Your task to perform on an android device: turn on the 12-hour format for clock Image 0: 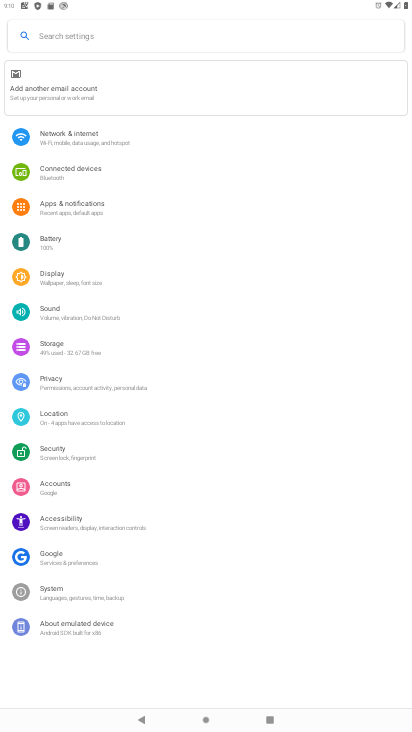
Step 0: press home button
Your task to perform on an android device: turn on the 12-hour format for clock Image 1: 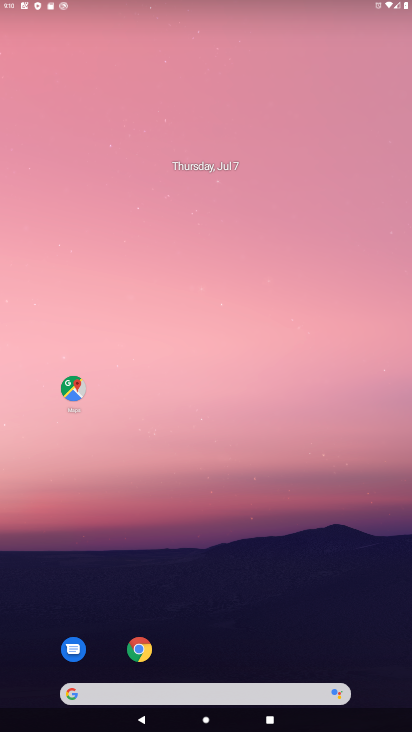
Step 1: drag from (204, 607) to (235, 84)
Your task to perform on an android device: turn on the 12-hour format for clock Image 2: 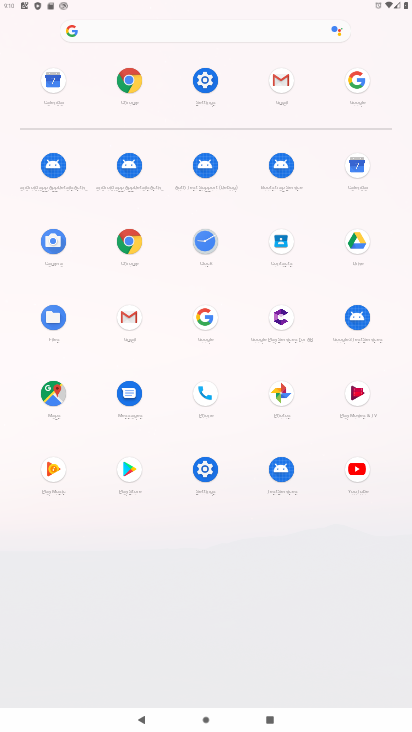
Step 2: click (197, 240)
Your task to perform on an android device: turn on the 12-hour format for clock Image 3: 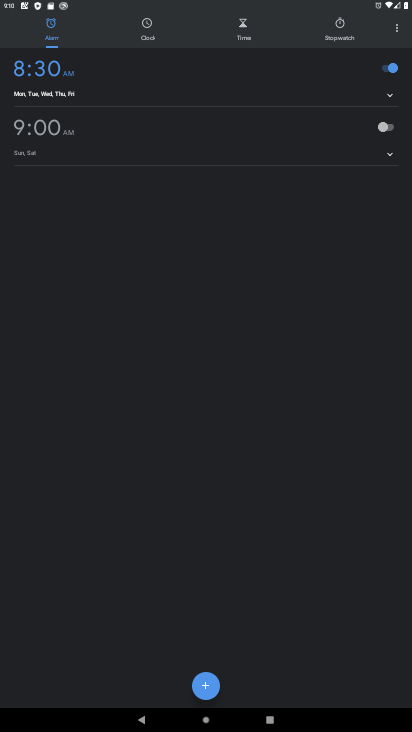
Step 3: click (398, 27)
Your task to perform on an android device: turn on the 12-hour format for clock Image 4: 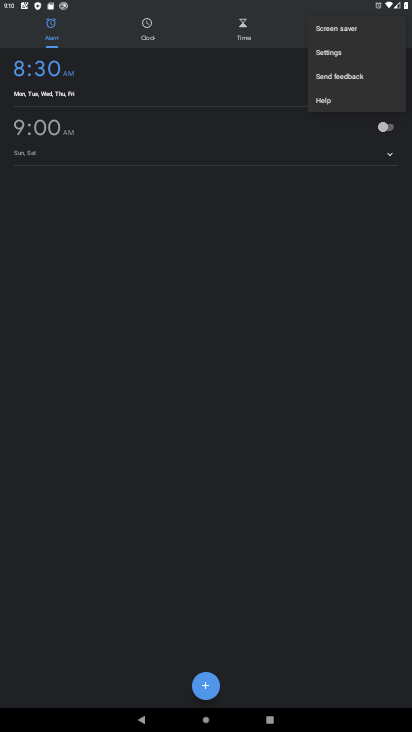
Step 4: click (333, 53)
Your task to perform on an android device: turn on the 12-hour format for clock Image 5: 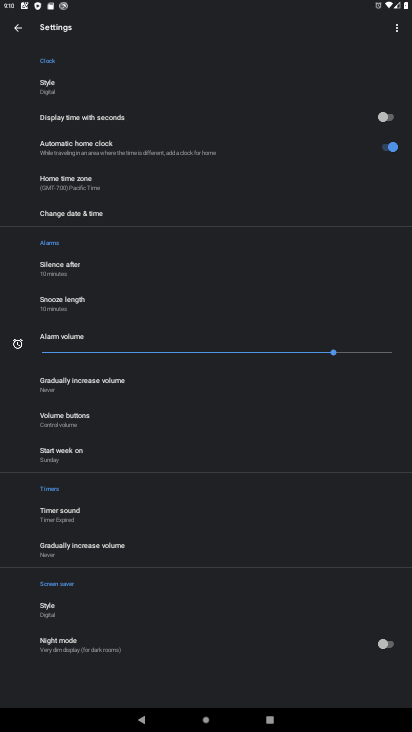
Step 5: click (80, 219)
Your task to perform on an android device: turn on the 12-hour format for clock Image 6: 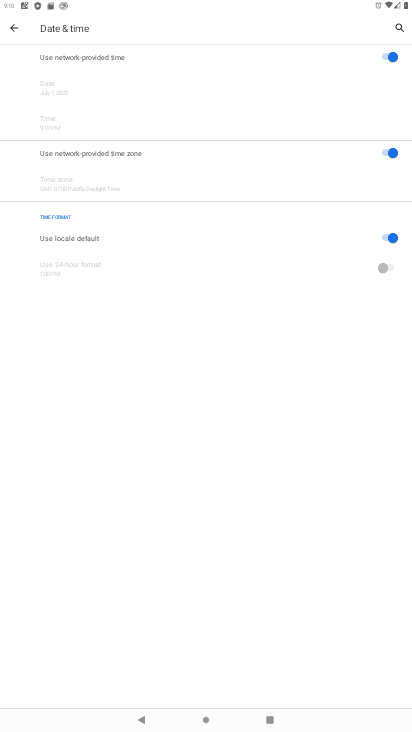
Step 6: click (380, 235)
Your task to perform on an android device: turn on the 12-hour format for clock Image 7: 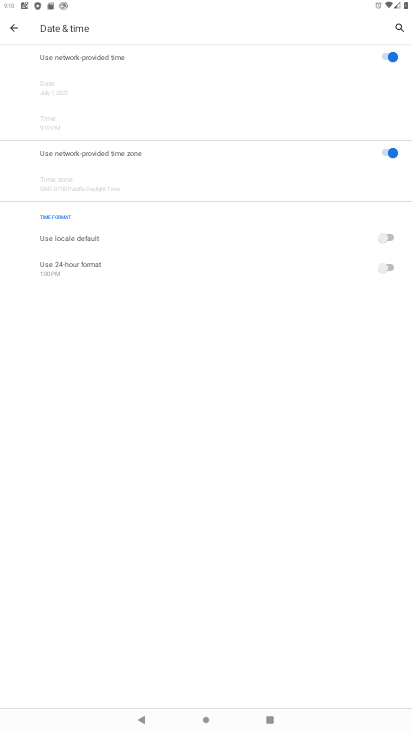
Step 7: task complete